Your task to perform on an android device: Is it going to rain tomorrow? Image 0: 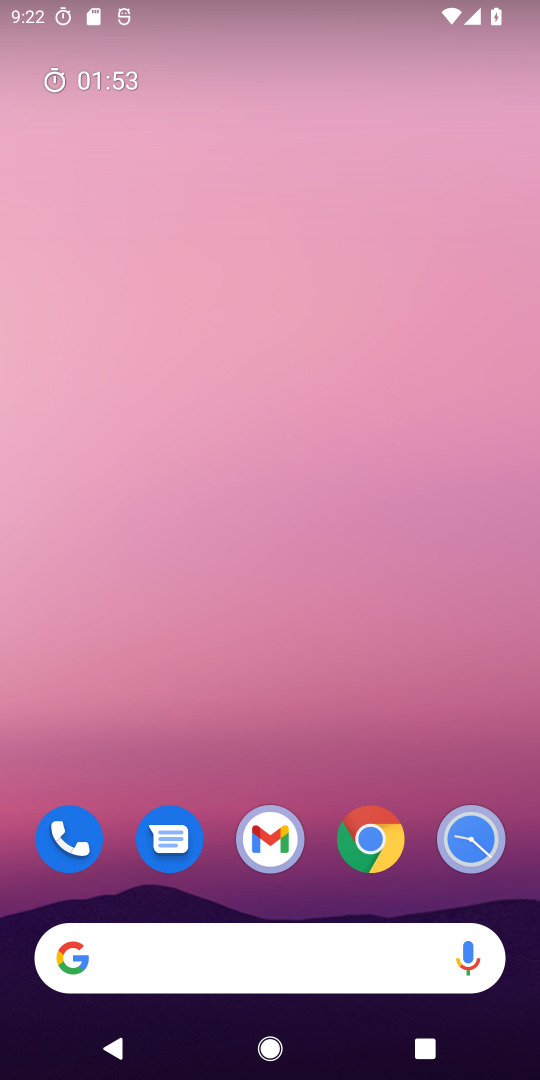
Step 0: press home button
Your task to perform on an android device: Is it going to rain tomorrow? Image 1: 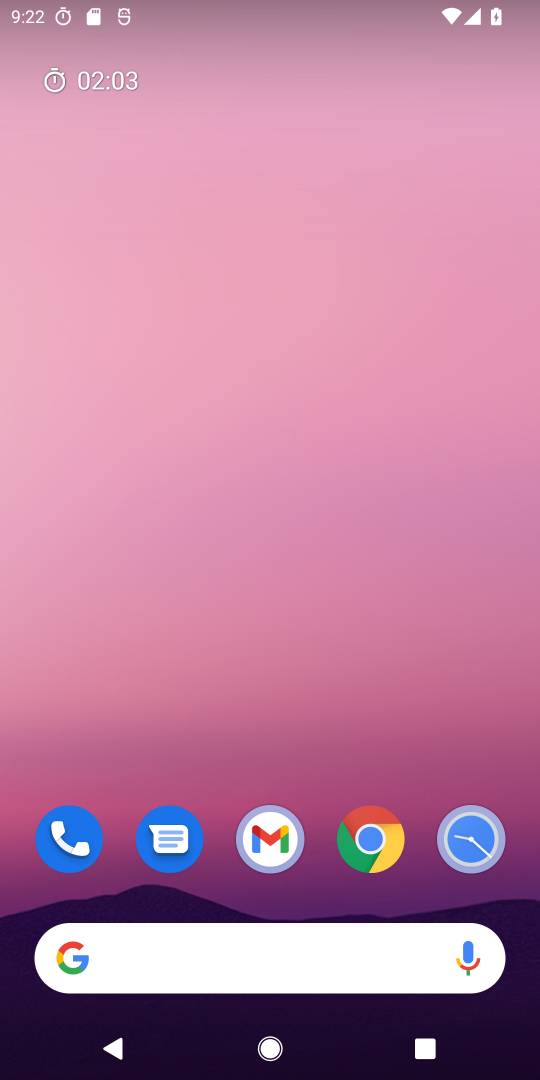
Step 1: drag from (310, 781) to (227, 0)
Your task to perform on an android device: Is it going to rain tomorrow? Image 2: 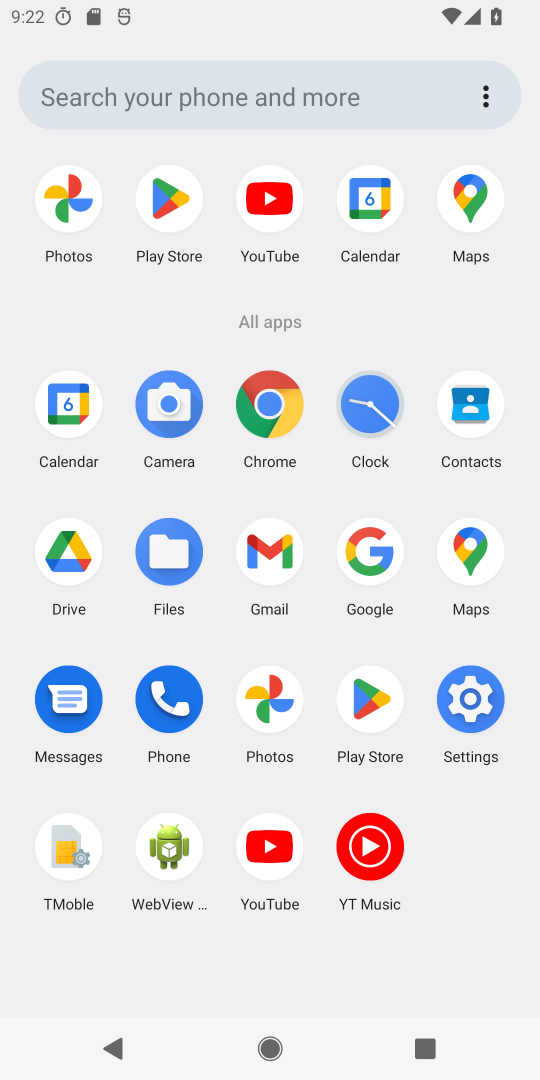
Step 2: press home button
Your task to perform on an android device: Is it going to rain tomorrow? Image 3: 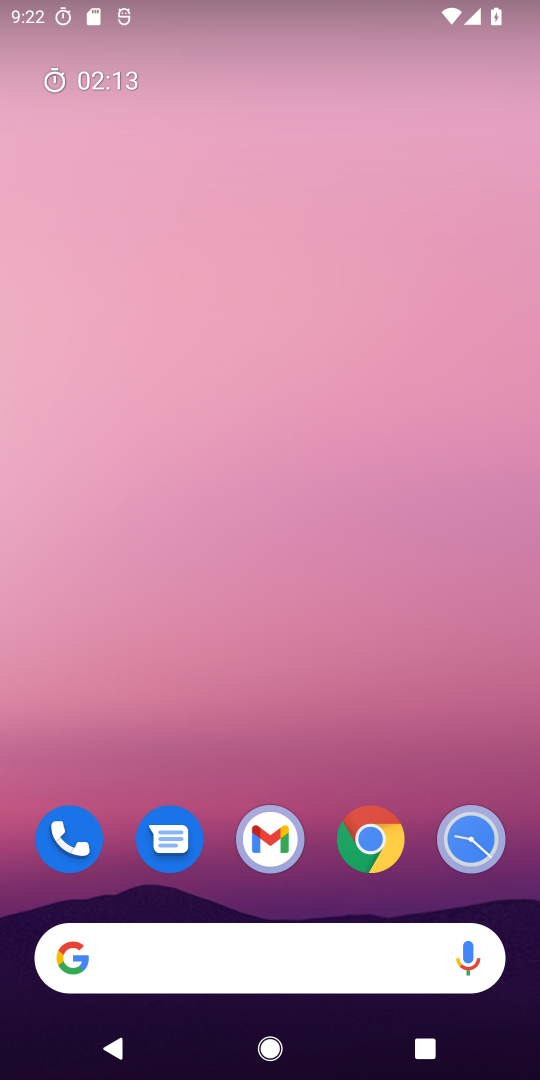
Step 3: click (222, 947)
Your task to perform on an android device: Is it going to rain tomorrow? Image 4: 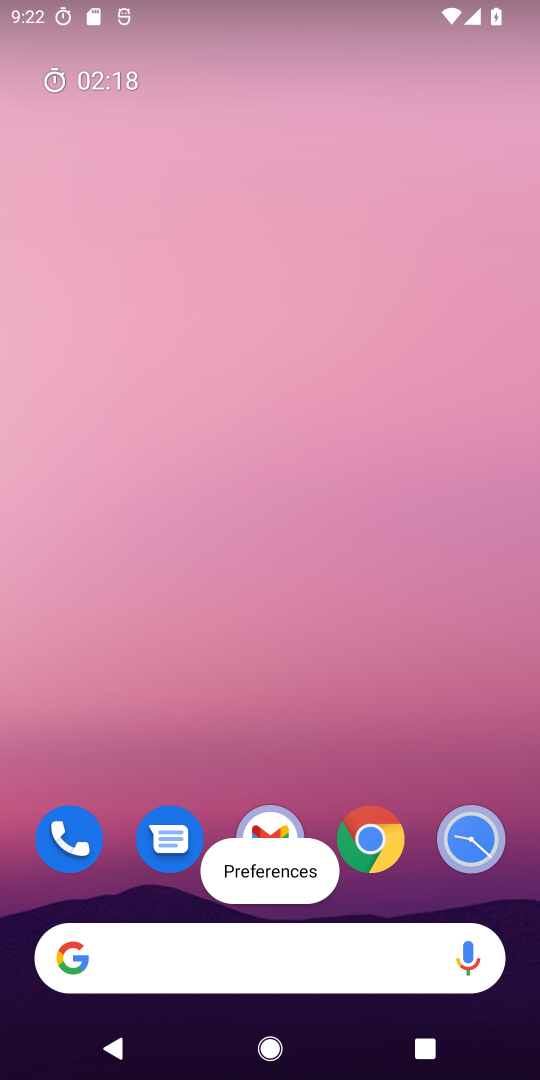
Step 4: click (139, 945)
Your task to perform on an android device: Is it going to rain tomorrow? Image 5: 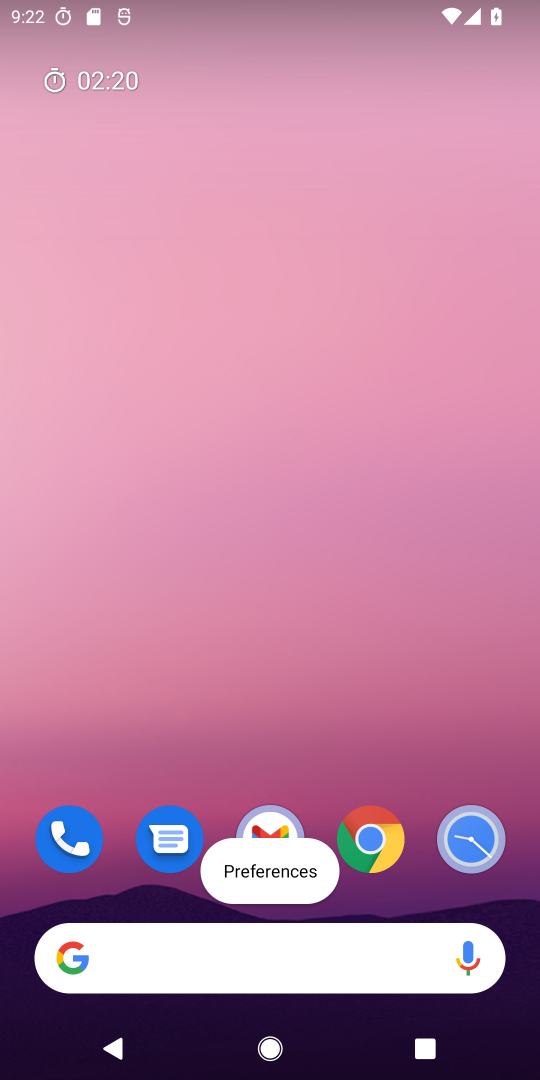
Step 5: click (102, 953)
Your task to perform on an android device: Is it going to rain tomorrow? Image 6: 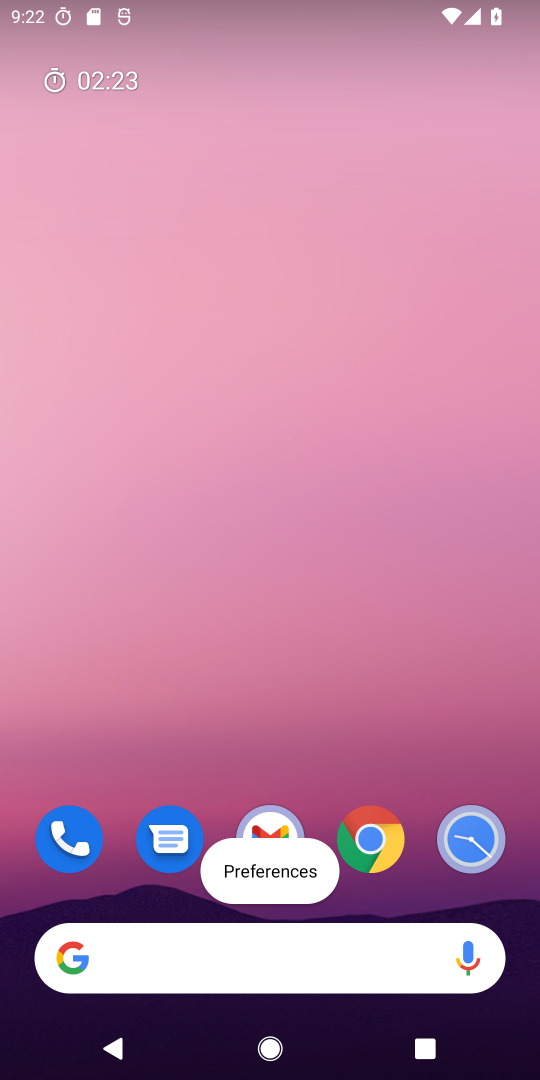
Step 6: click (146, 956)
Your task to perform on an android device: Is it going to rain tomorrow? Image 7: 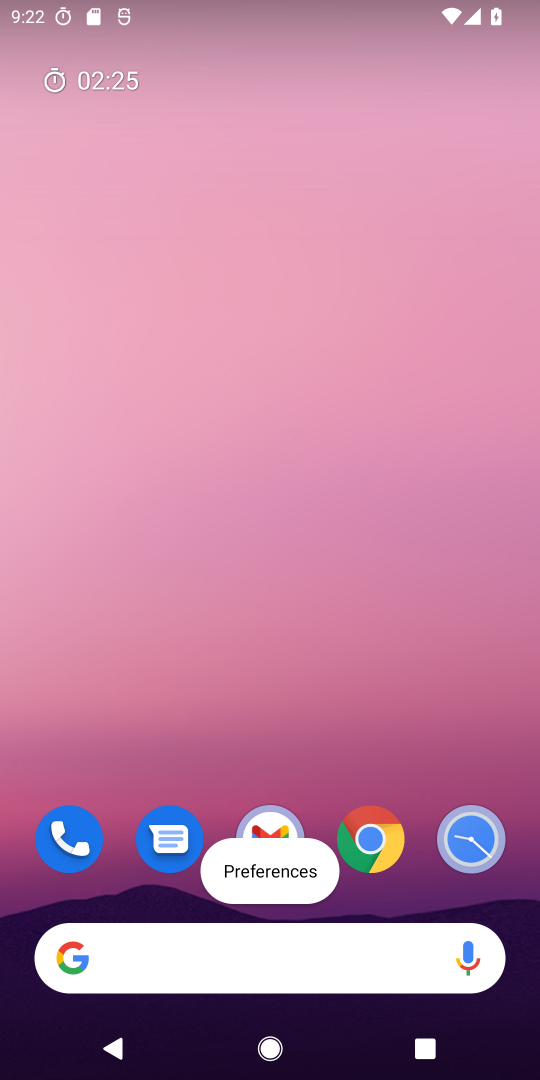
Step 7: click (298, 965)
Your task to perform on an android device: Is it going to rain tomorrow? Image 8: 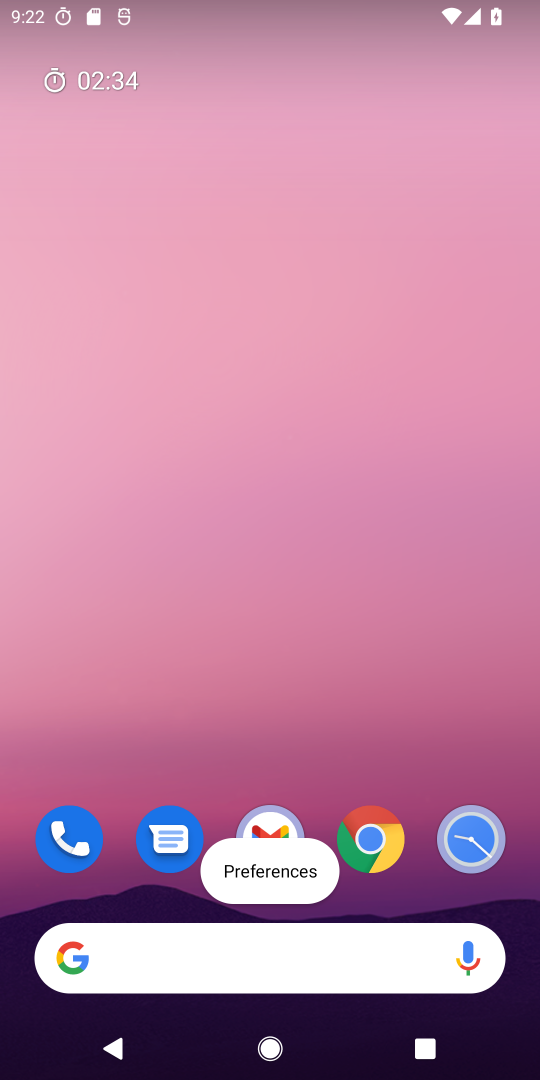
Step 8: click (206, 950)
Your task to perform on an android device: Is it going to rain tomorrow? Image 9: 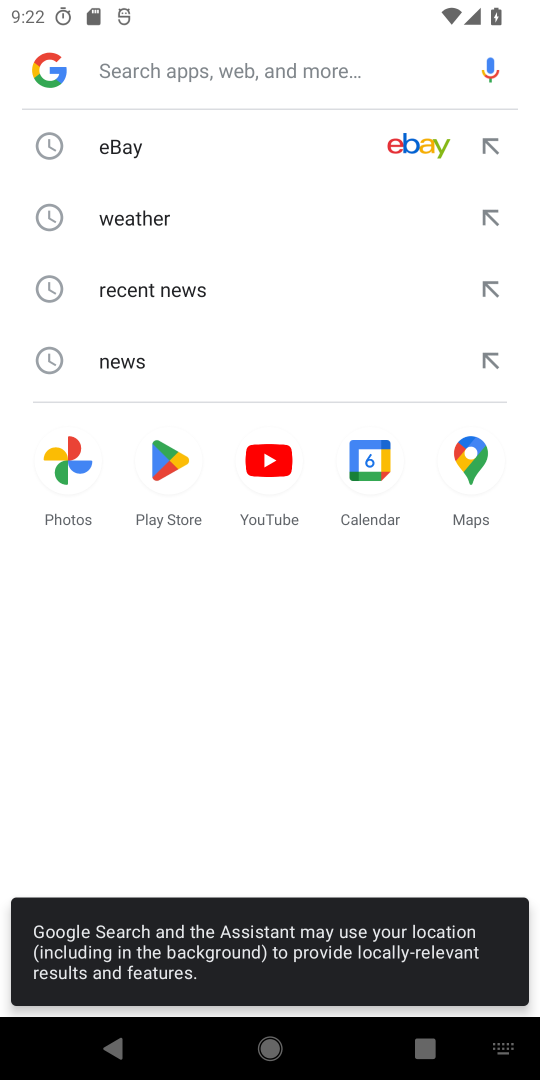
Step 9: click (157, 221)
Your task to perform on an android device: Is it going to rain tomorrow? Image 10: 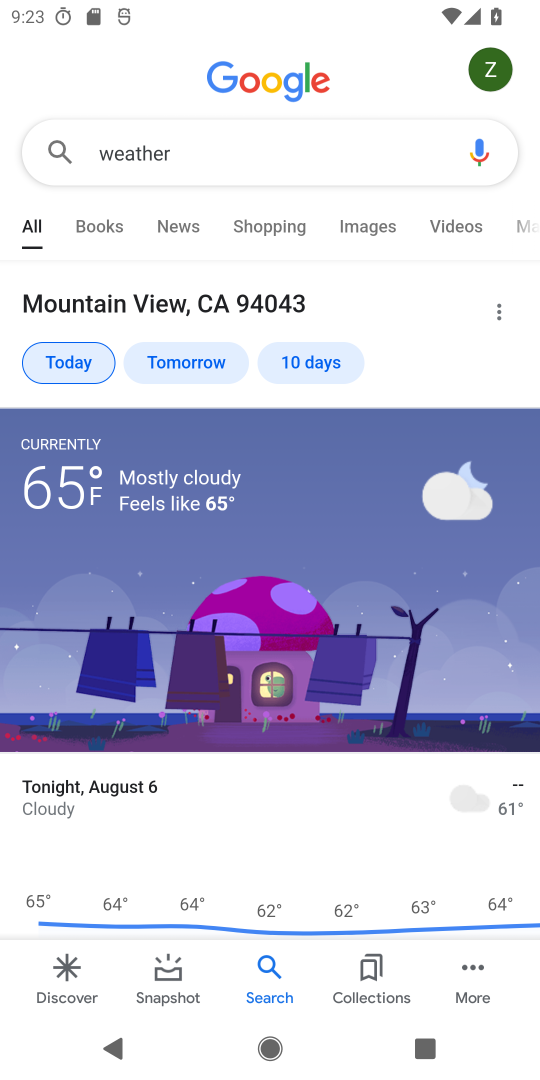
Step 10: drag from (294, 807) to (325, 158)
Your task to perform on an android device: Is it going to rain tomorrow? Image 11: 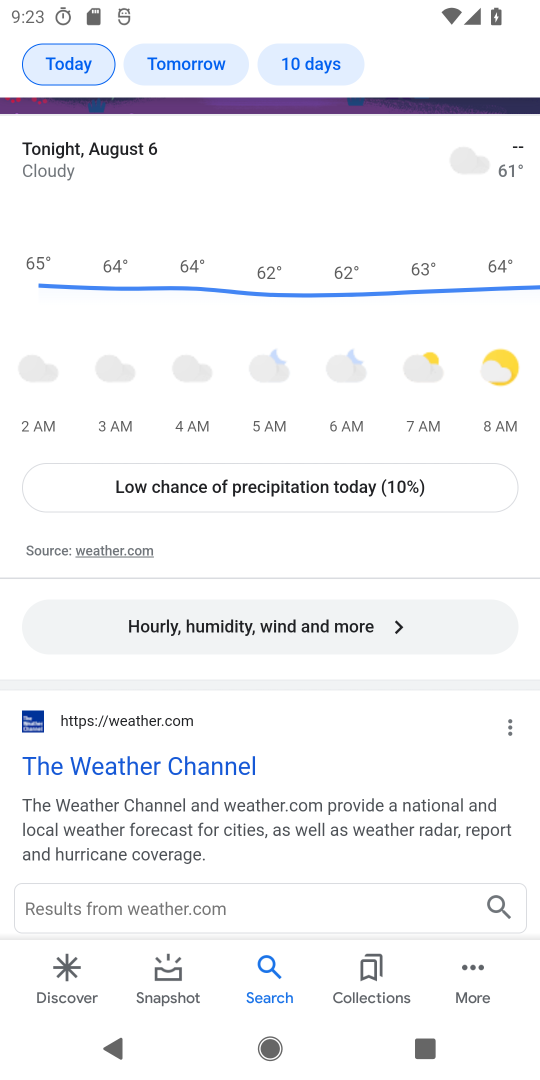
Step 11: drag from (276, 516) to (328, 842)
Your task to perform on an android device: Is it going to rain tomorrow? Image 12: 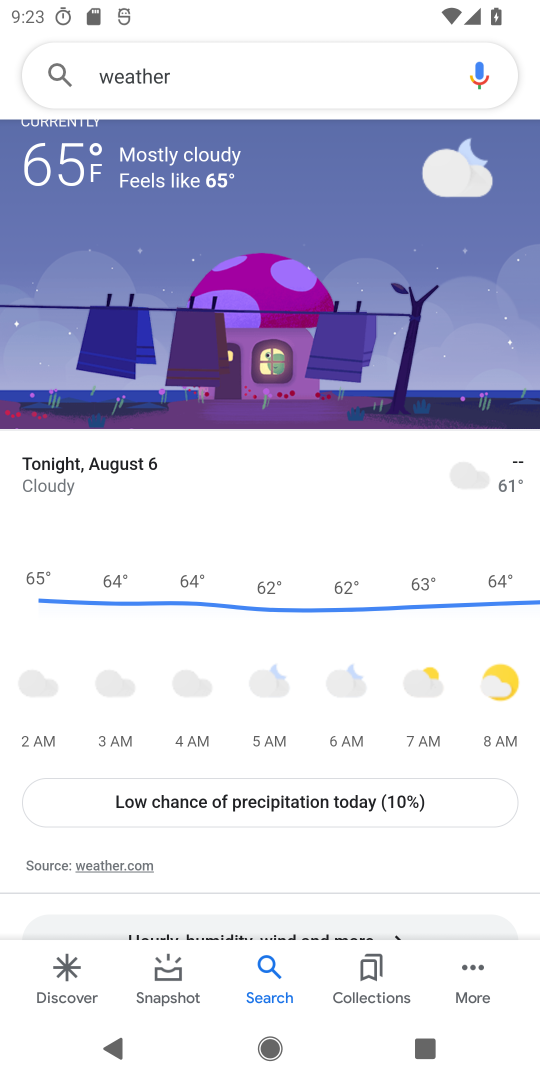
Step 12: drag from (498, 676) to (111, 683)
Your task to perform on an android device: Is it going to rain tomorrow? Image 13: 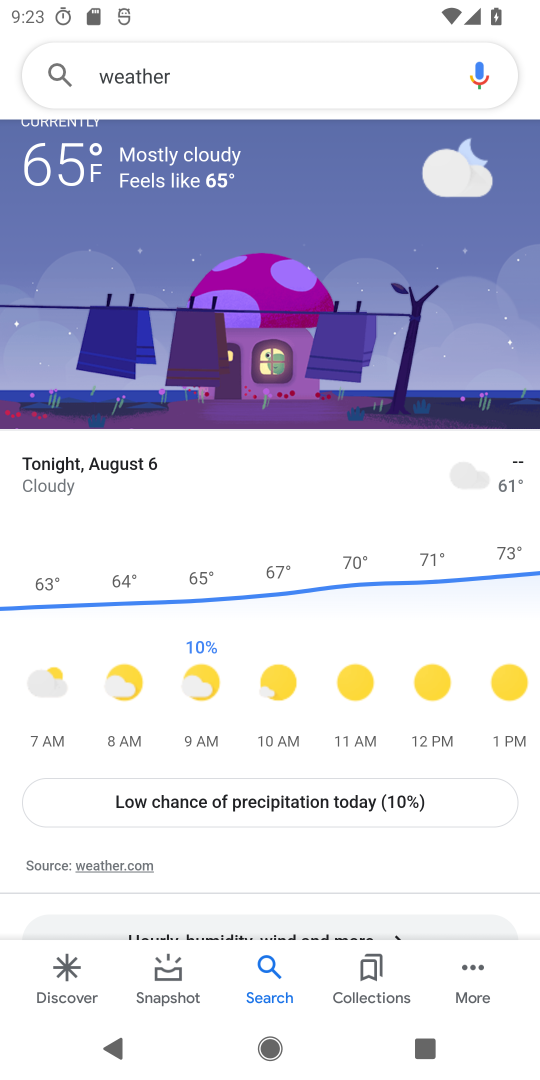
Step 13: drag from (497, 677) to (47, 700)
Your task to perform on an android device: Is it going to rain tomorrow? Image 14: 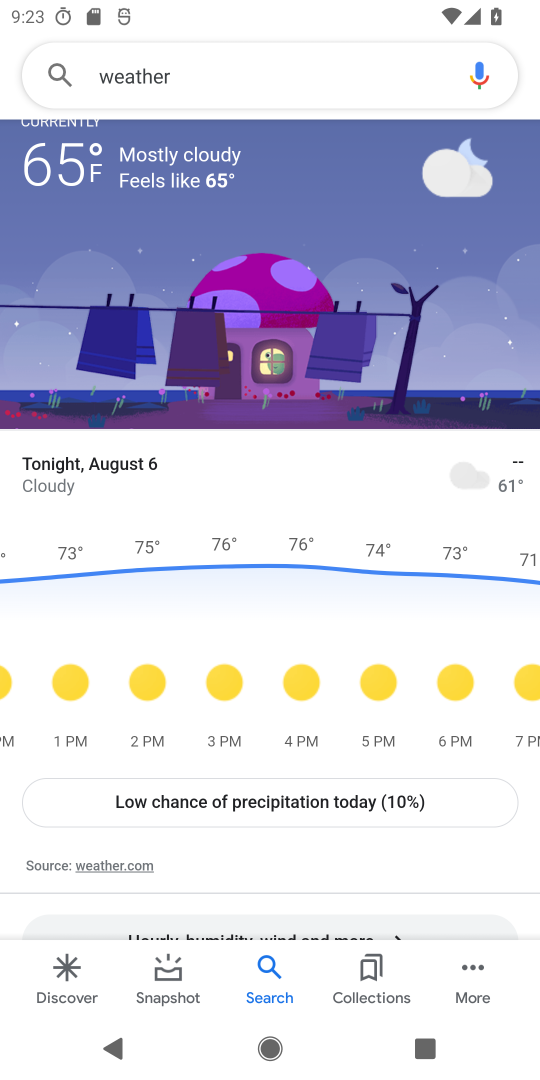
Step 14: drag from (265, 463) to (315, 751)
Your task to perform on an android device: Is it going to rain tomorrow? Image 15: 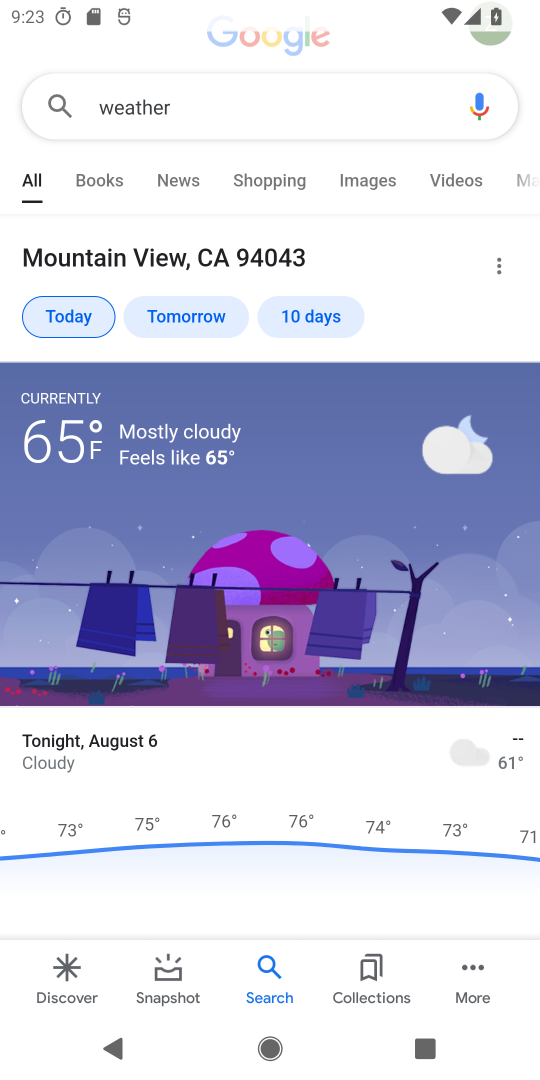
Step 15: click (188, 303)
Your task to perform on an android device: Is it going to rain tomorrow? Image 16: 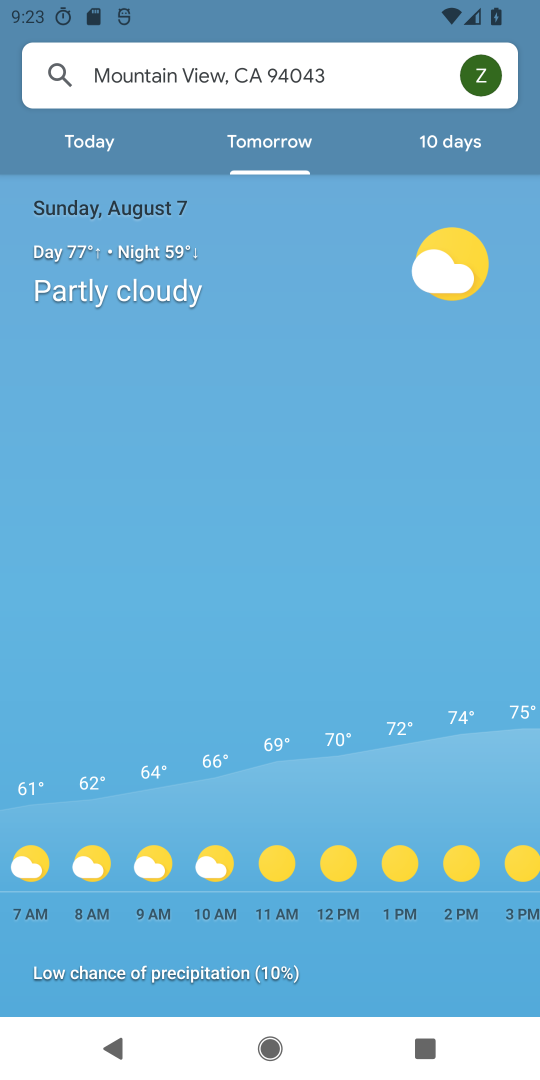
Step 16: task complete